Your task to perform on an android device: Open Google Chrome and click the shortcut for Amazon.com Image 0: 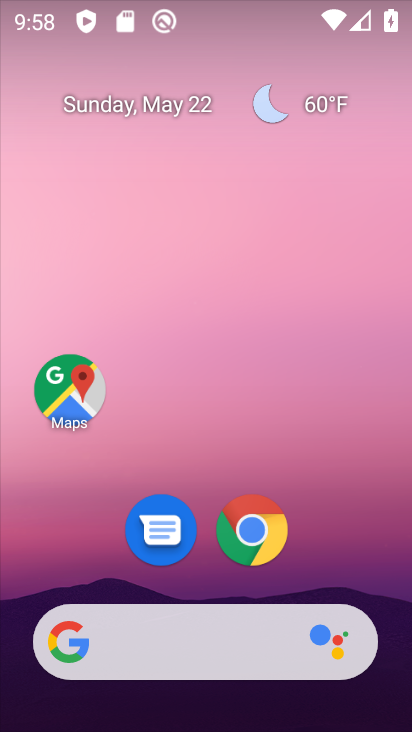
Step 0: click (275, 555)
Your task to perform on an android device: Open Google Chrome and click the shortcut for Amazon.com Image 1: 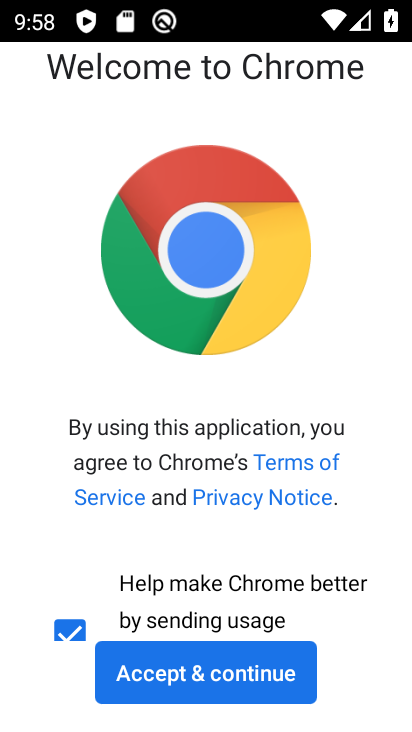
Step 1: click (214, 670)
Your task to perform on an android device: Open Google Chrome and click the shortcut for Amazon.com Image 2: 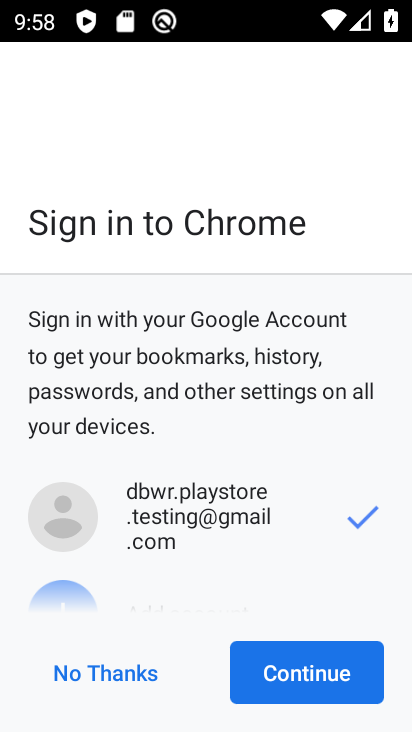
Step 2: click (287, 662)
Your task to perform on an android device: Open Google Chrome and click the shortcut for Amazon.com Image 3: 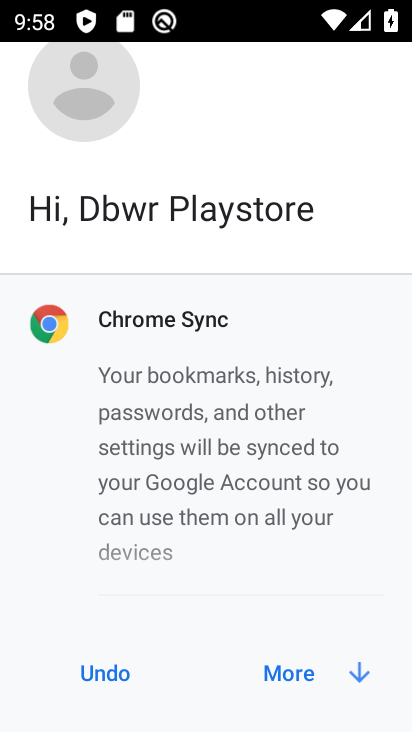
Step 3: click (285, 681)
Your task to perform on an android device: Open Google Chrome and click the shortcut for Amazon.com Image 4: 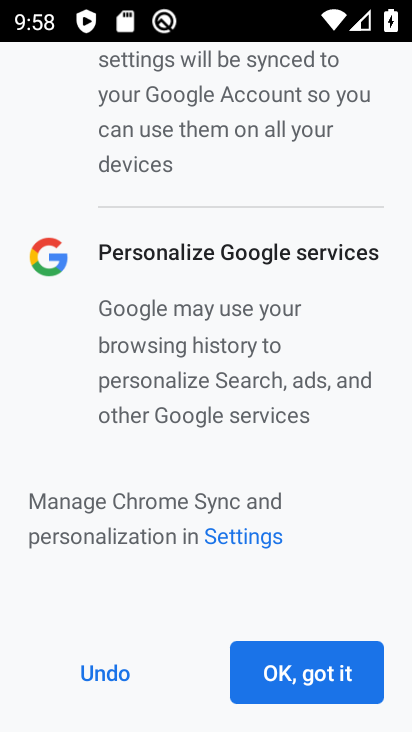
Step 4: click (285, 674)
Your task to perform on an android device: Open Google Chrome and click the shortcut for Amazon.com Image 5: 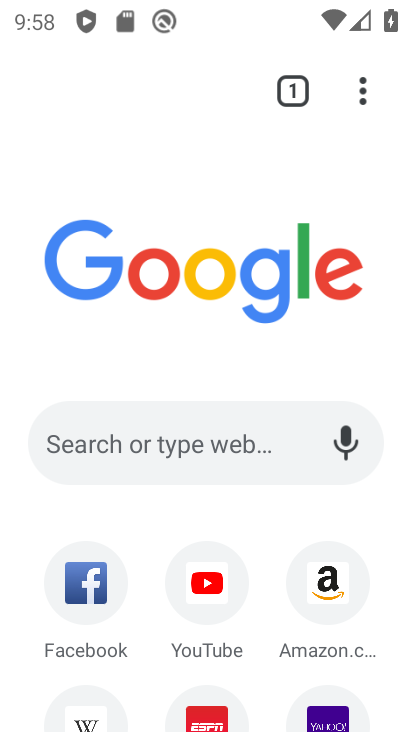
Step 5: click (292, 450)
Your task to perform on an android device: Open Google Chrome and click the shortcut for Amazon.com Image 6: 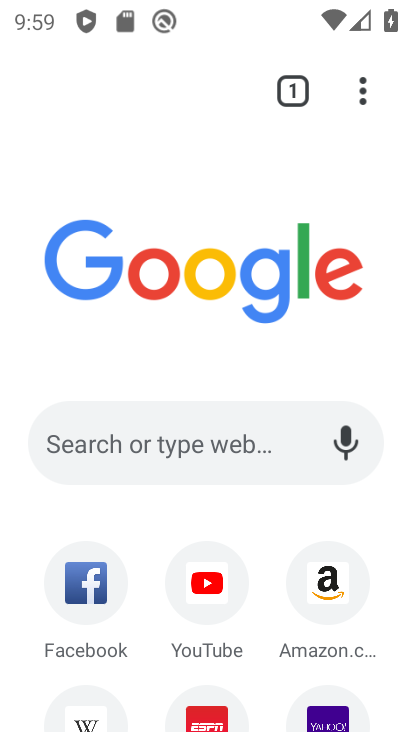
Step 6: click (277, 447)
Your task to perform on an android device: Open Google Chrome and click the shortcut for Amazon.com Image 7: 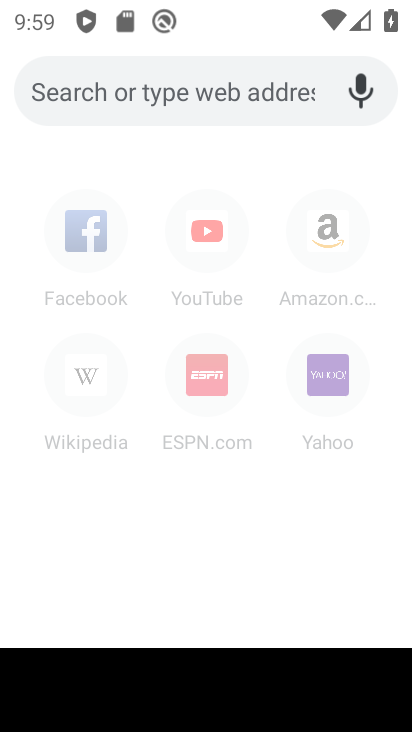
Step 7: type "Amazon.com"
Your task to perform on an android device: Open Google Chrome and click the shortcut for Amazon.com Image 8: 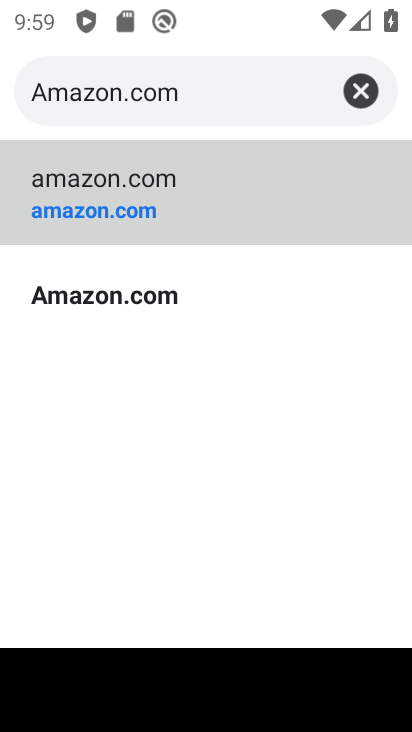
Step 8: click (147, 289)
Your task to perform on an android device: Open Google Chrome and click the shortcut for Amazon.com Image 9: 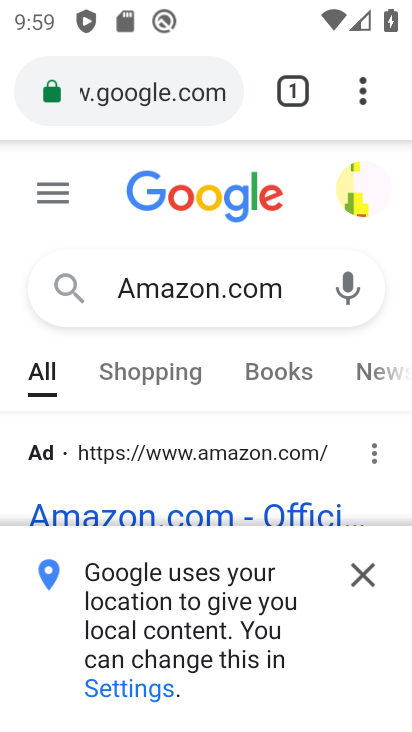
Step 9: click (366, 575)
Your task to perform on an android device: Open Google Chrome and click the shortcut for Amazon.com Image 10: 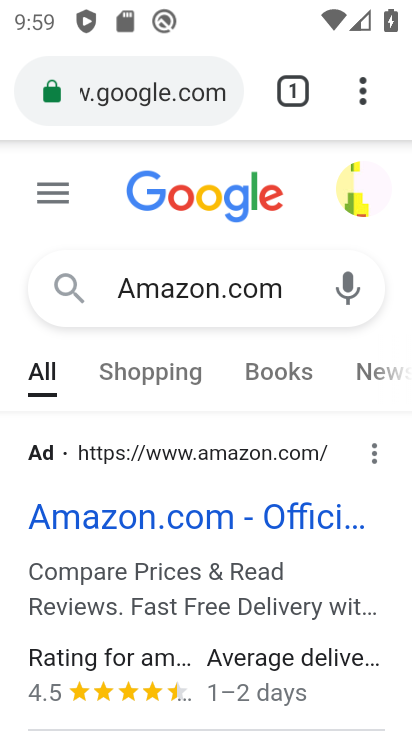
Step 10: task complete